Your task to perform on an android device: Go to Reddit.com Image 0: 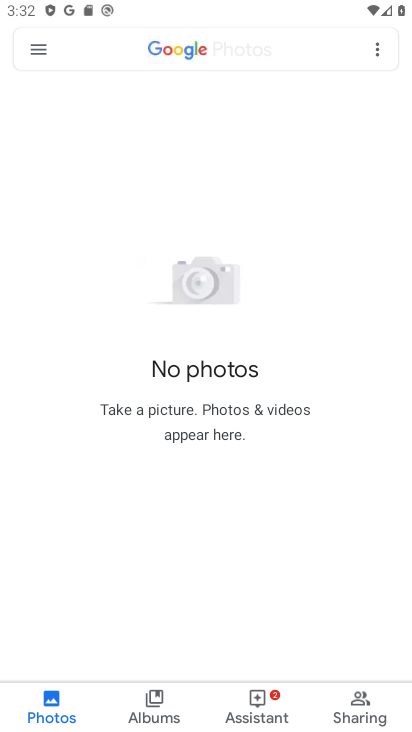
Step 0: press home button
Your task to perform on an android device: Go to Reddit.com Image 1: 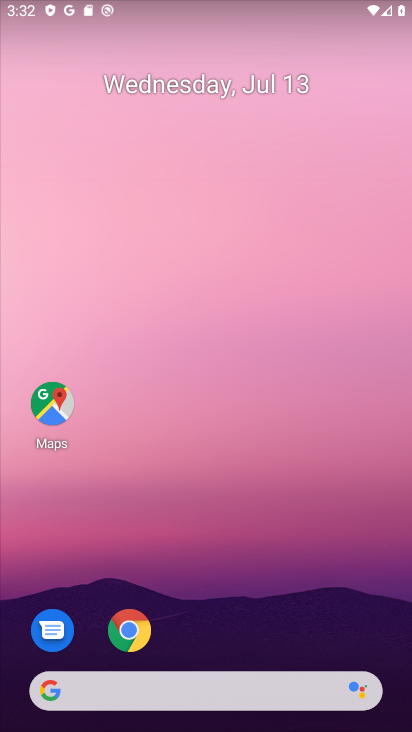
Step 1: click (123, 630)
Your task to perform on an android device: Go to Reddit.com Image 2: 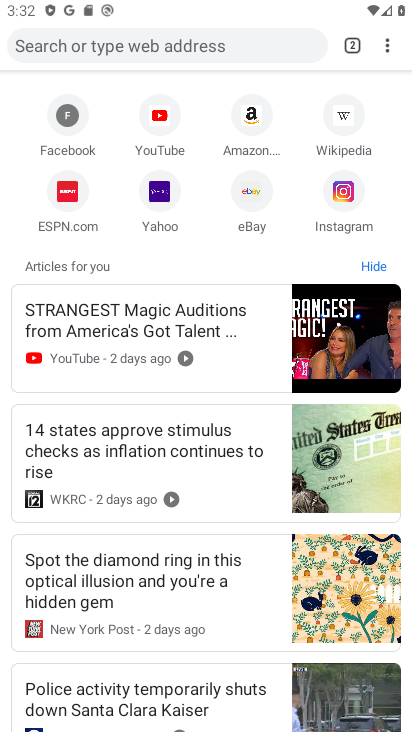
Step 2: click (170, 41)
Your task to perform on an android device: Go to Reddit.com Image 3: 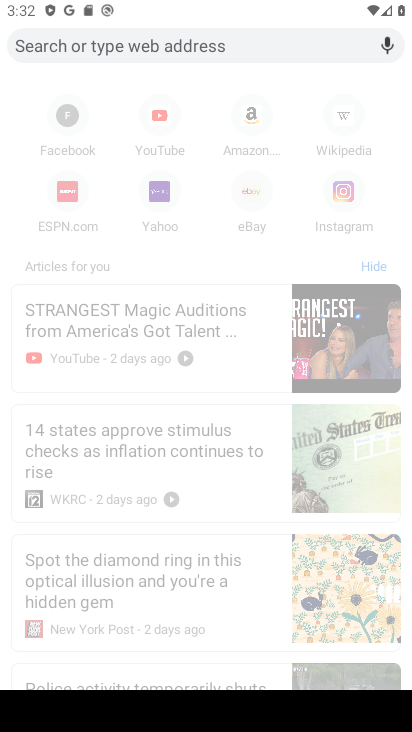
Step 3: type "reddit.com"
Your task to perform on an android device: Go to Reddit.com Image 4: 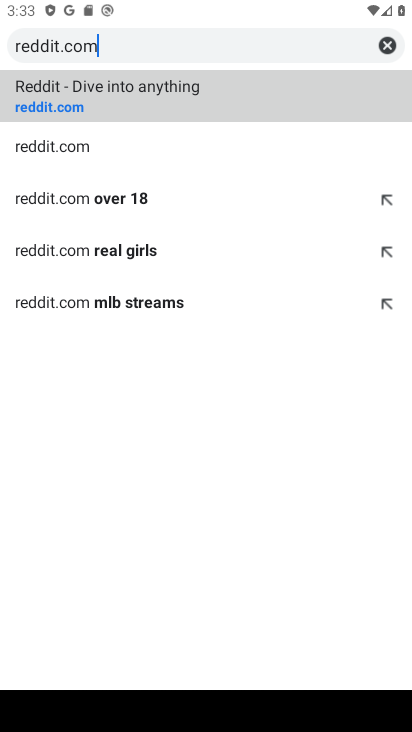
Step 4: click (33, 114)
Your task to perform on an android device: Go to Reddit.com Image 5: 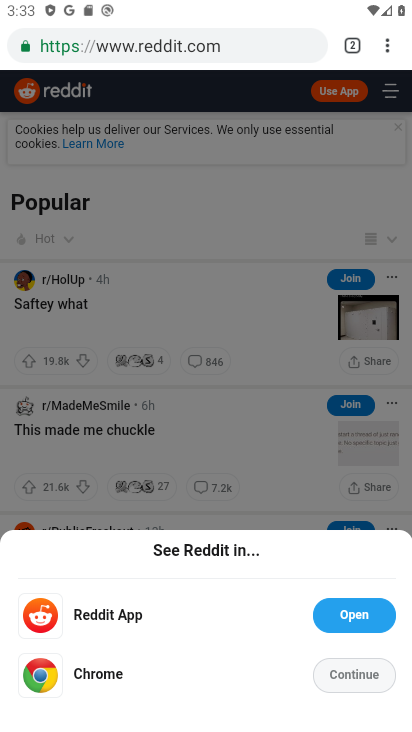
Step 5: task complete